Your task to perform on an android device: delete a single message in the gmail app Image 0: 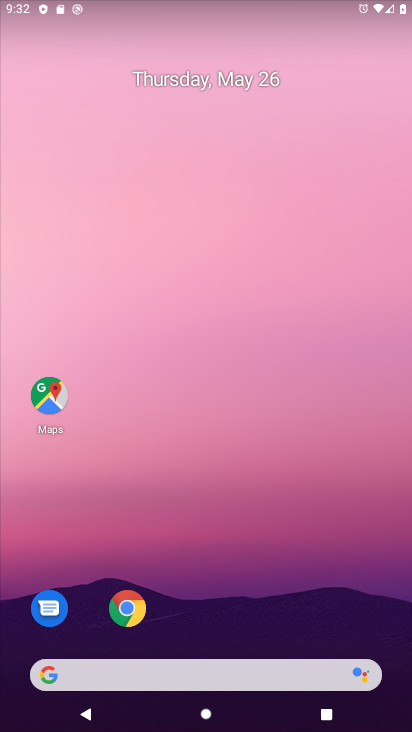
Step 0: drag from (273, 524) to (214, 13)
Your task to perform on an android device: delete a single message in the gmail app Image 1: 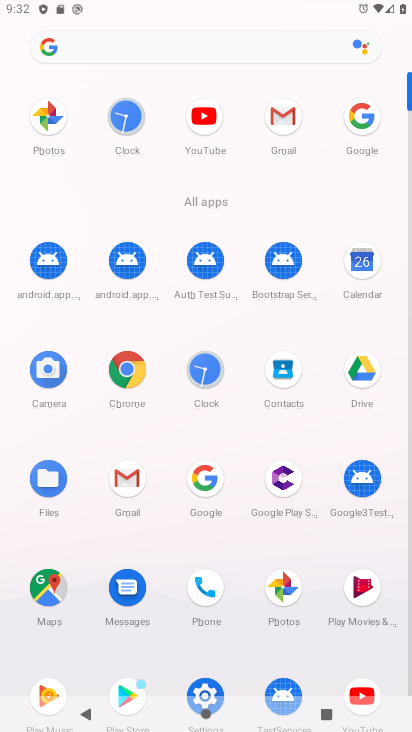
Step 1: click (137, 473)
Your task to perform on an android device: delete a single message in the gmail app Image 2: 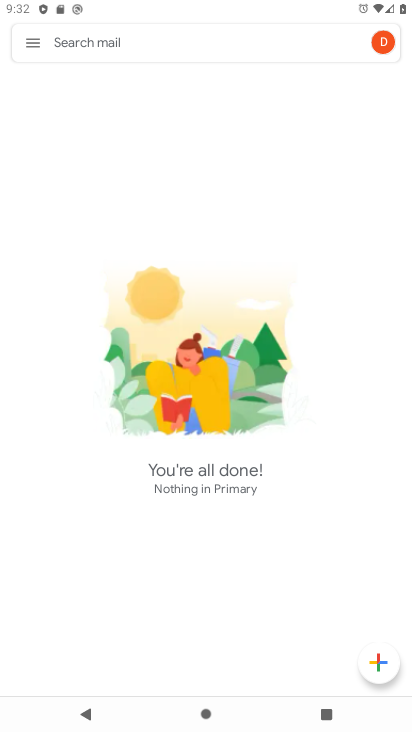
Step 2: click (39, 45)
Your task to perform on an android device: delete a single message in the gmail app Image 3: 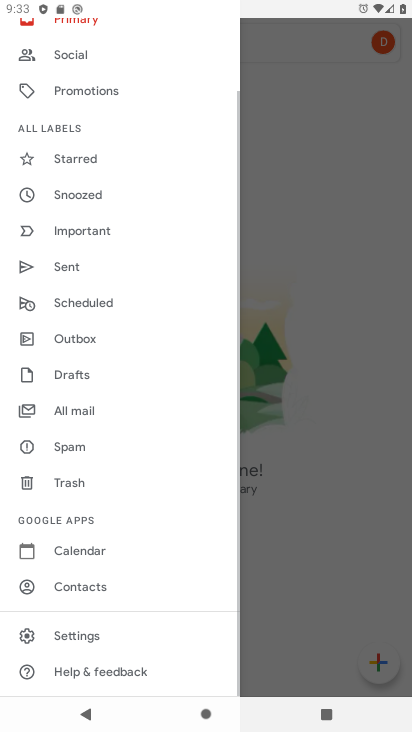
Step 3: click (87, 403)
Your task to perform on an android device: delete a single message in the gmail app Image 4: 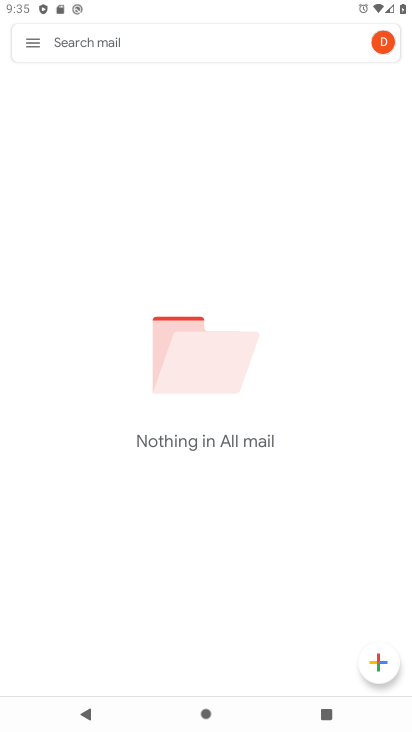
Step 4: task complete